Your task to perform on an android device: Open eBay Image 0: 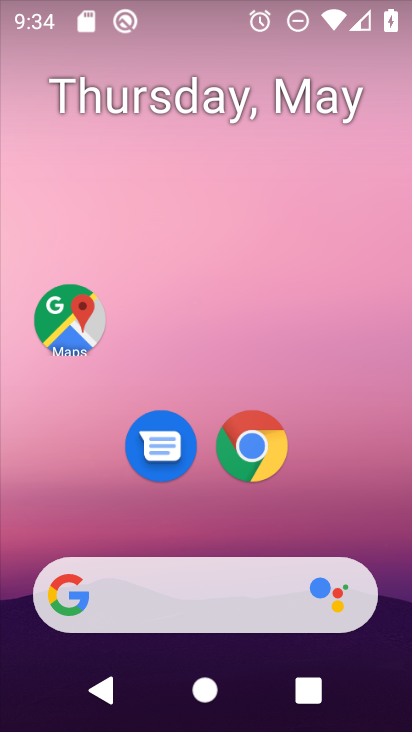
Step 0: drag from (373, 537) to (364, 164)
Your task to perform on an android device: Open eBay Image 1: 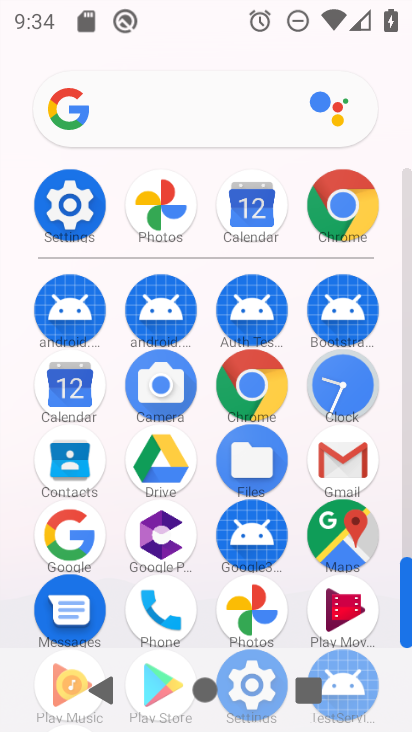
Step 1: drag from (293, 594) to (311, 329)
Your task to perform on an android device: Open eBay Image 2: 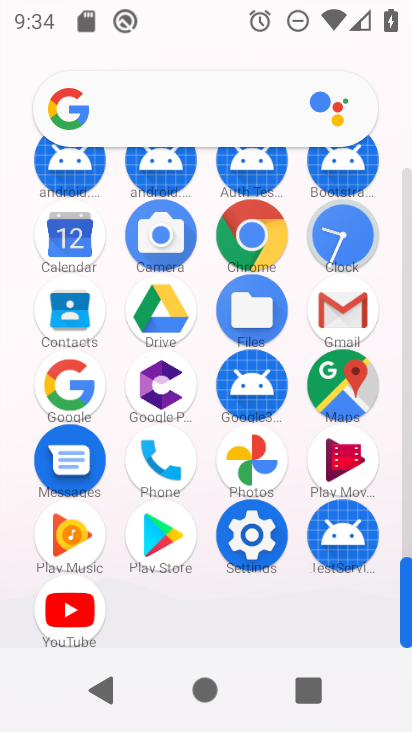
Step 2: click (252, 254)
Your task to perform on an android device: Open eBay Image 3: 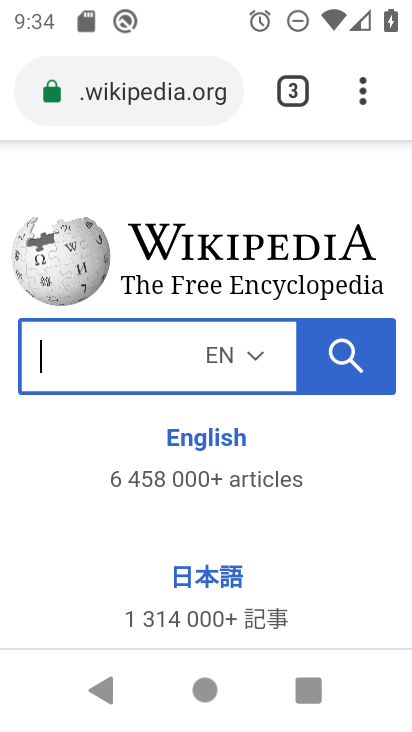
Step 3: click (164, 97)
Your task to perform on an android device: Open eBay Image 4: 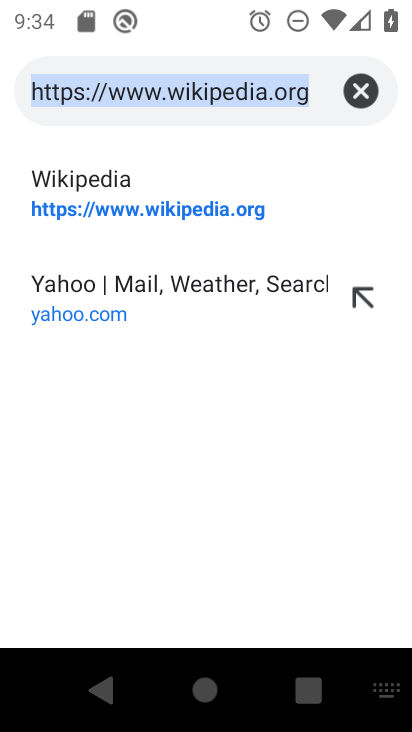
Step 4: type "ebay"
Your task to perform on an android device: Open eBay Image 5: 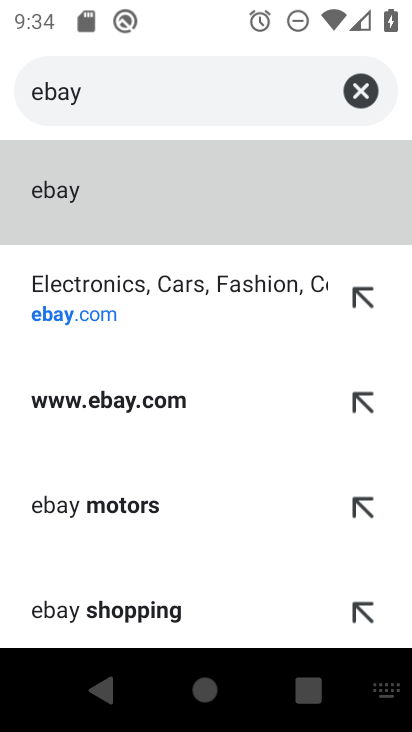
Step 5: click (57, 204)
Your task to perform on an android device: Open eBay Image 6: 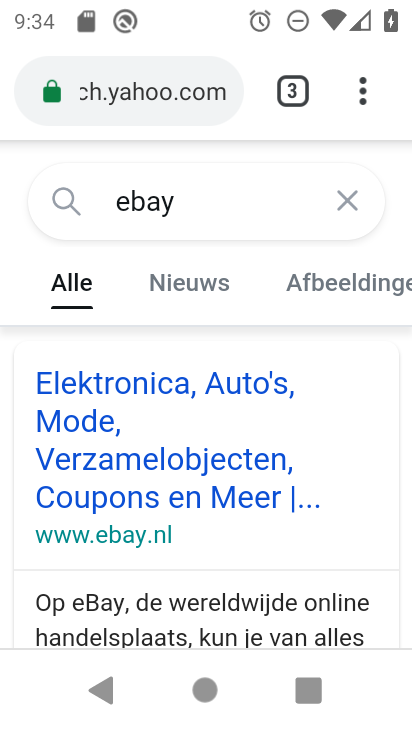
Step 6: click (258, 489)
Your task to perform on an android device: Open eBay Image 7: 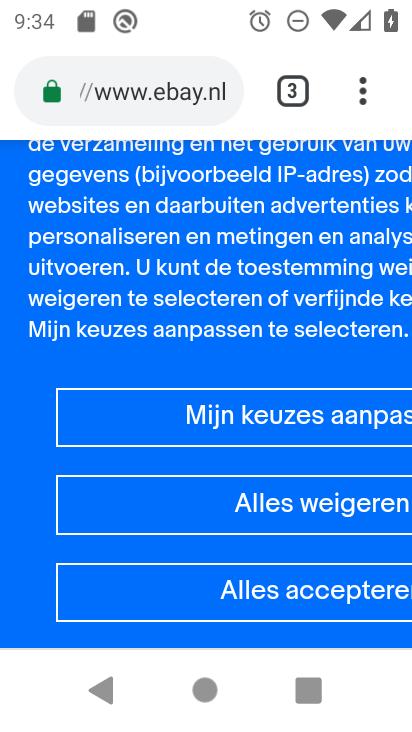
Step 7: task complete